Your task to perform on an android device: Search for flights from NYC to Tokyo Image 0: 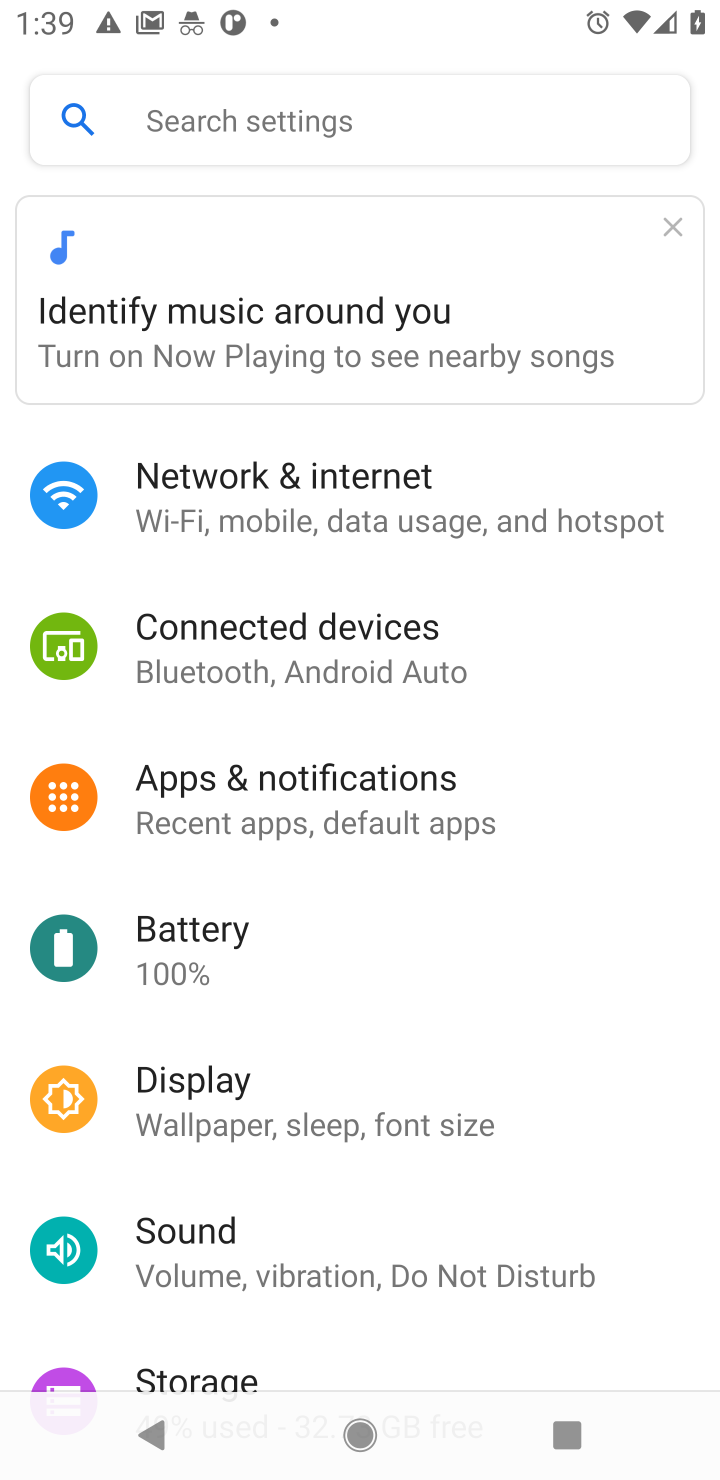
Step 0: press home button
Your task to perform on an android device: Search for flights from NYC to Tokyo Image 1: 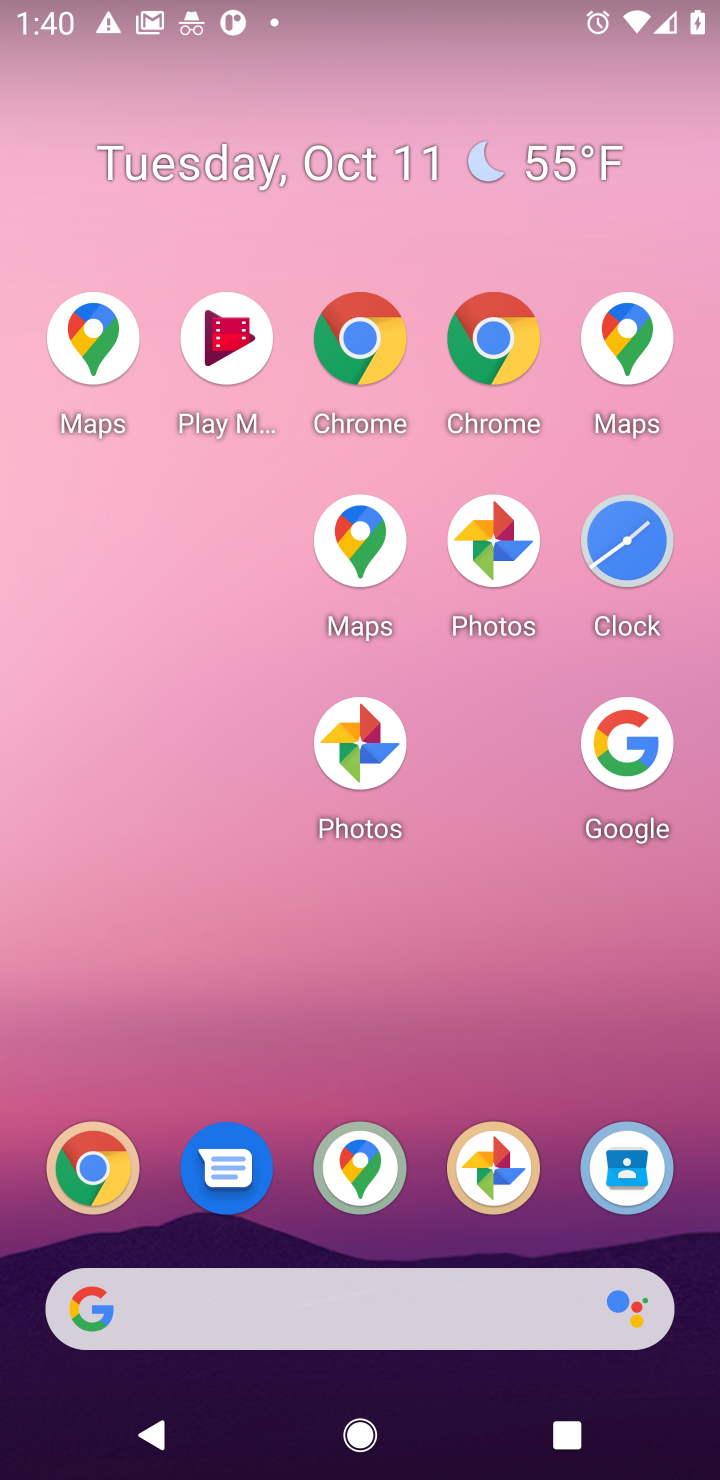
Step 1: click (633, 763)
Your task to perform on an android device: Search for flights from NYC to Tokyo Image 2: 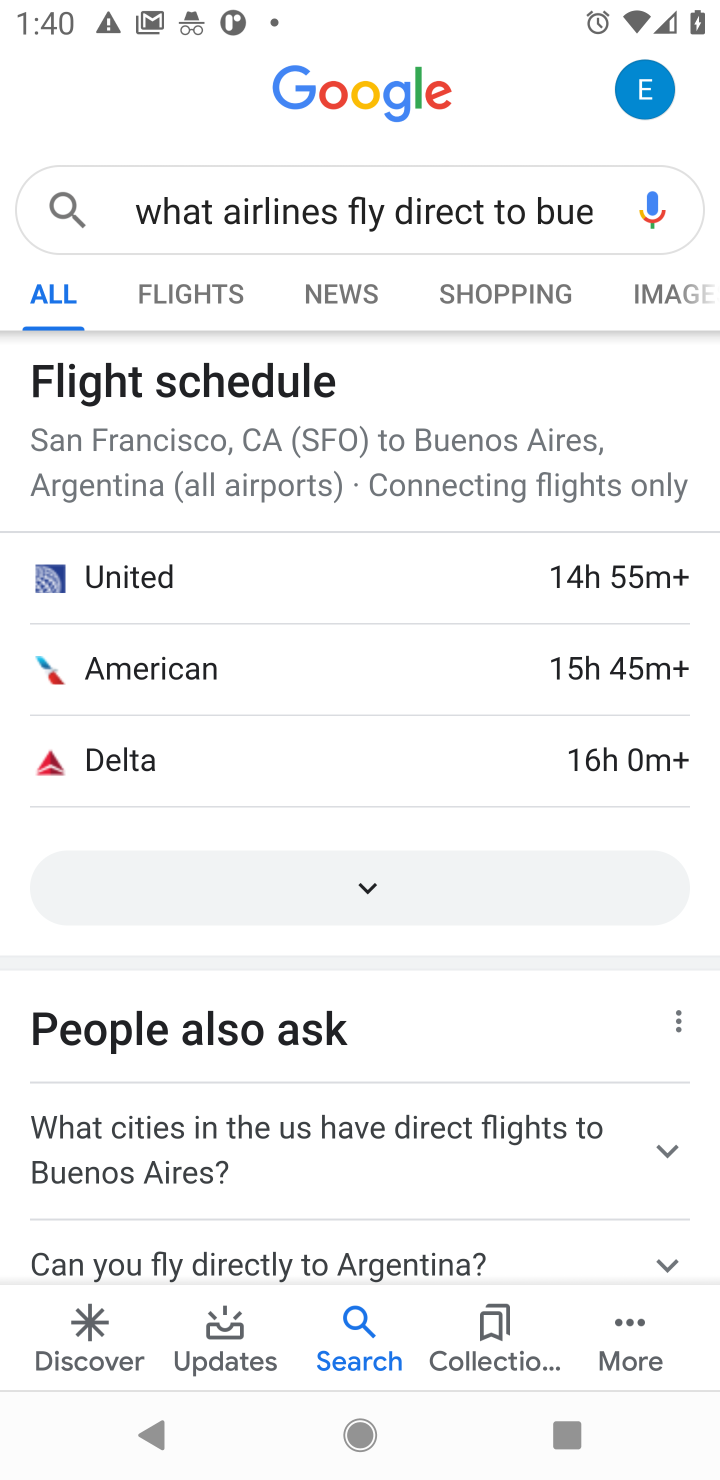
Step 2: click (580, 313)
Your task to perform on an android device: Search for flights from NYC to Tokyo Image 3: 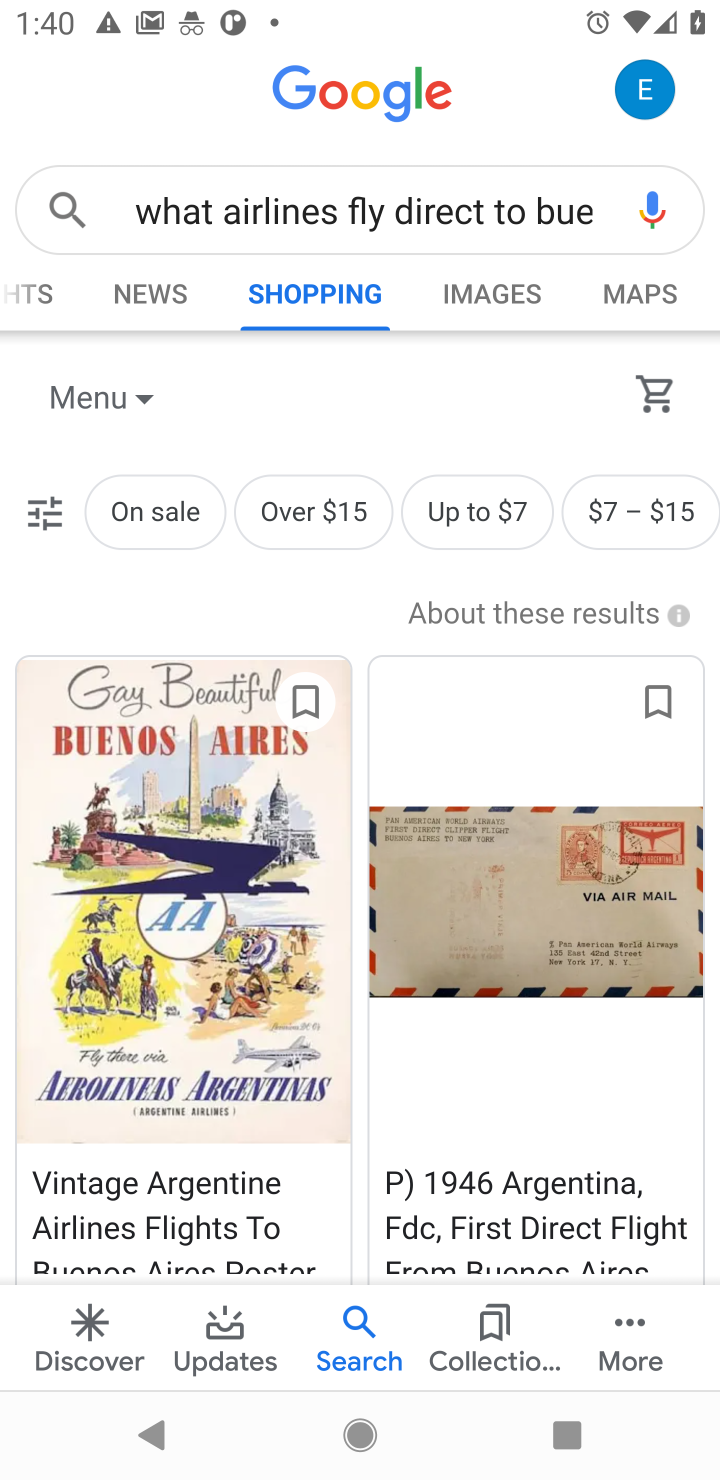
Step 3: click (537, 216)
Your task to perform on an android device: Search for flights from NYC to Tokyo Image 4: 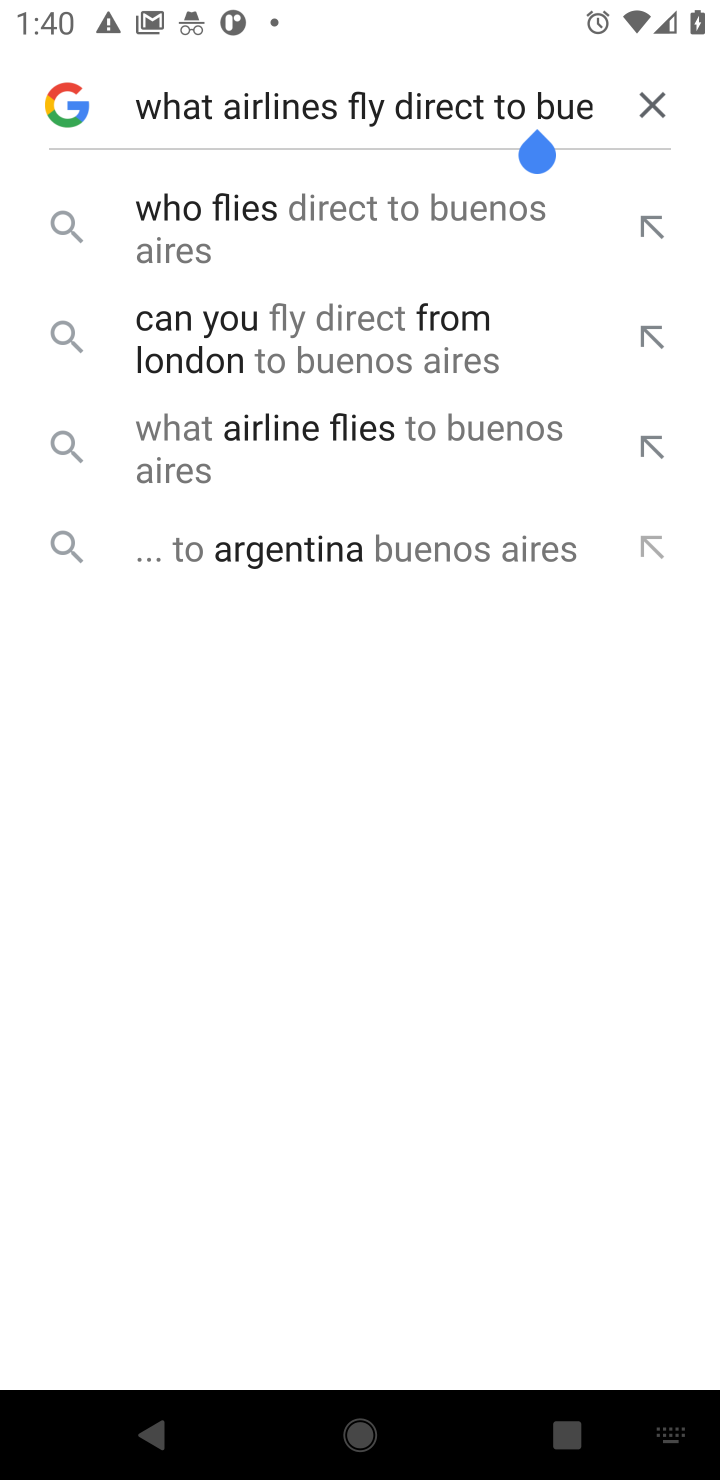
Step 4: click (668, 138)
Your task to perform on an android device: Search for flights from NYC to Tokyo Image 5: 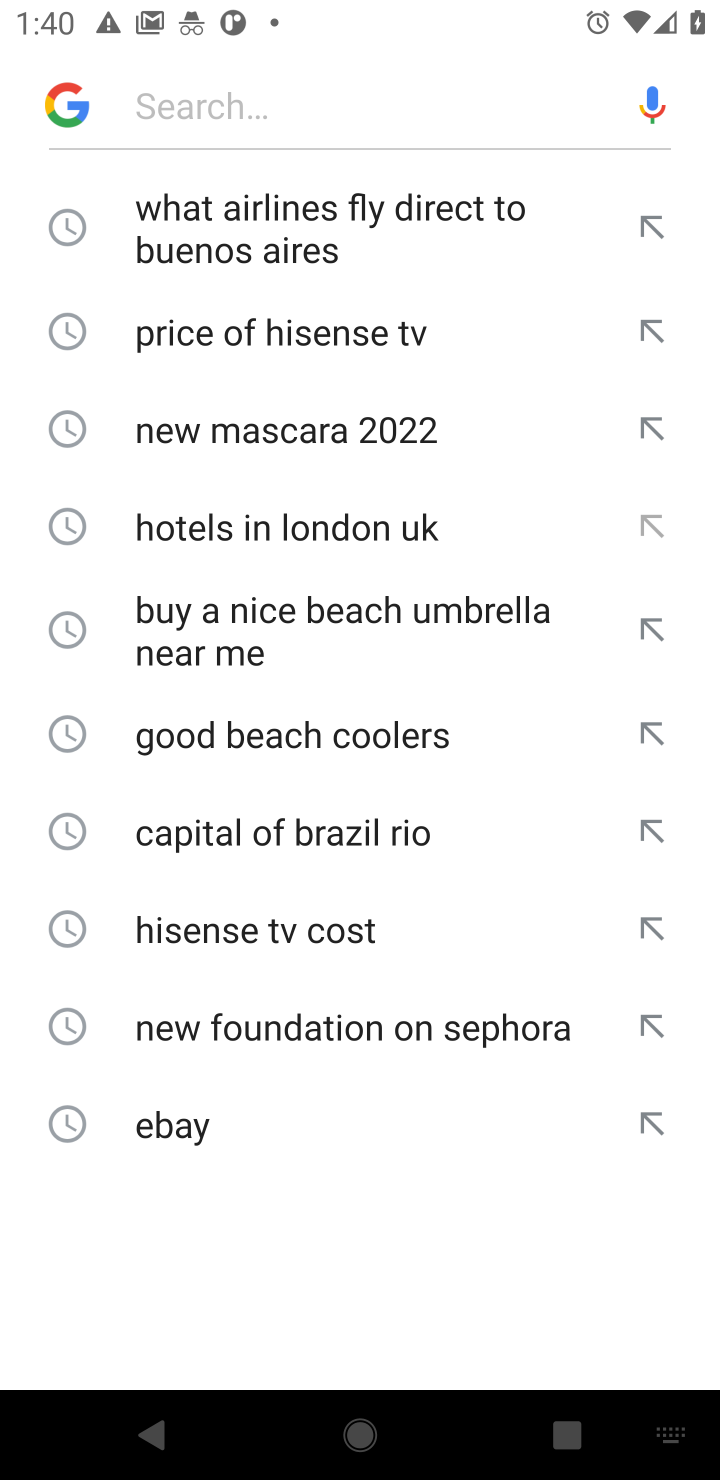
Step 5: type "flights from NYC to Tokyo"
Your task to perform on an android device: Search for flights from NYC to Tokyo Image 6: 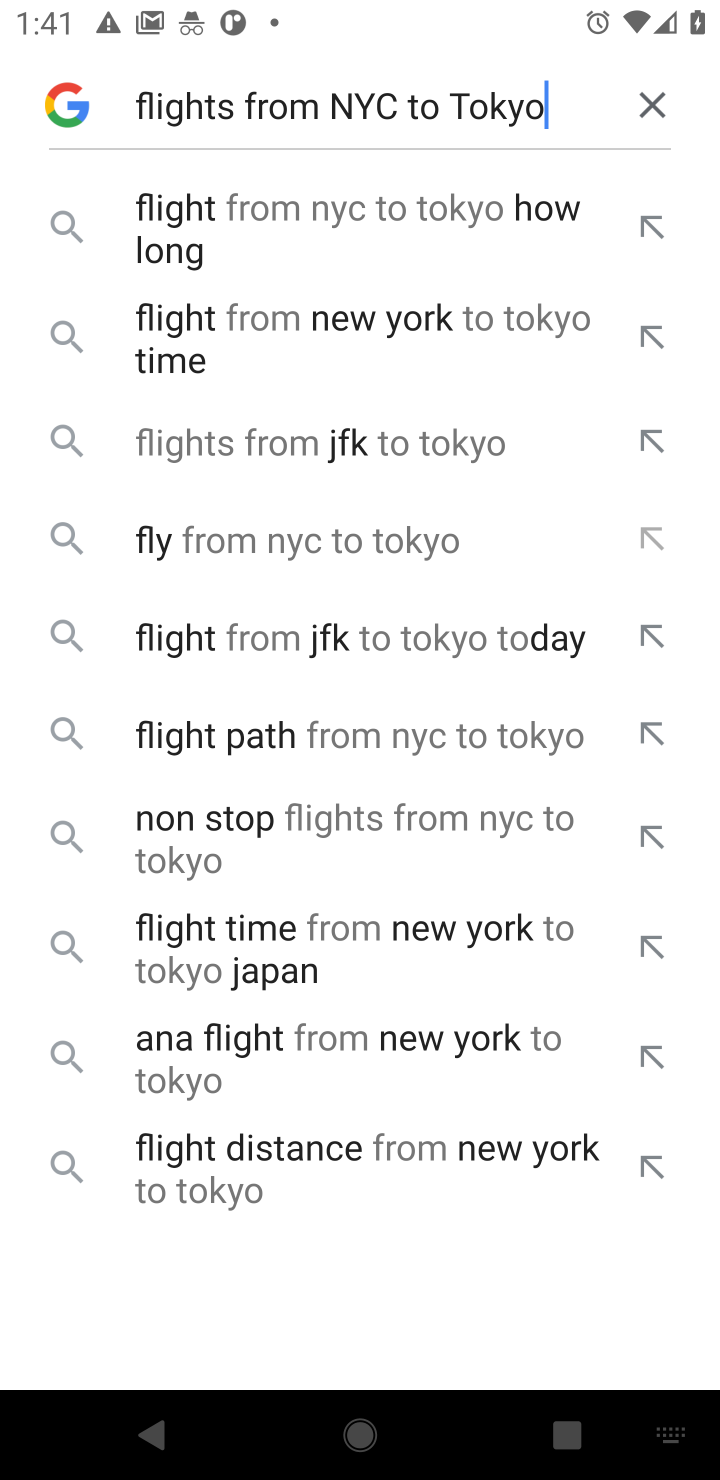
Step 6: task complete